Your task to perform on an android device: check storage Image 0: 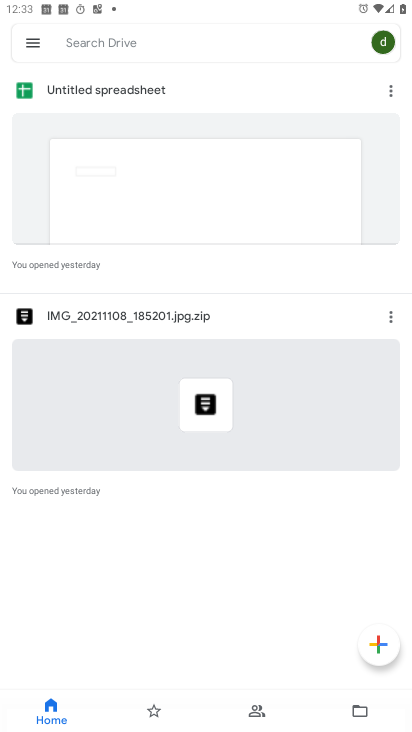
Step 0: press home button
Your task to perform on an android device: check storage Image 1: 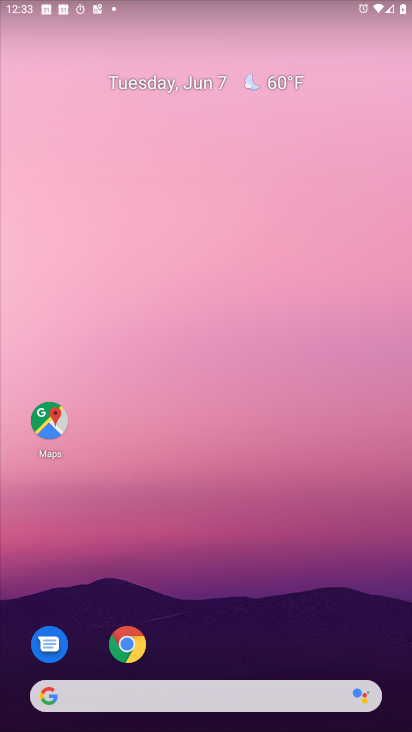
Step 1: drag from (111, 688) to (126, 30)
Your task to perform on an android device: check storage Image 2: 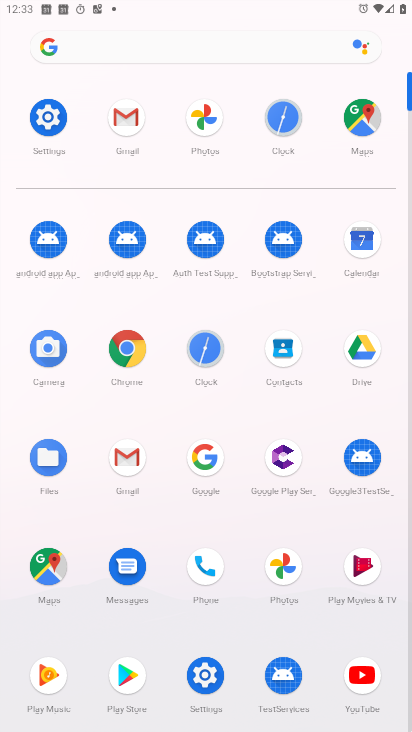
Step 2: click (59, 116)
Your task to perform on an android device: check storage Image 3: 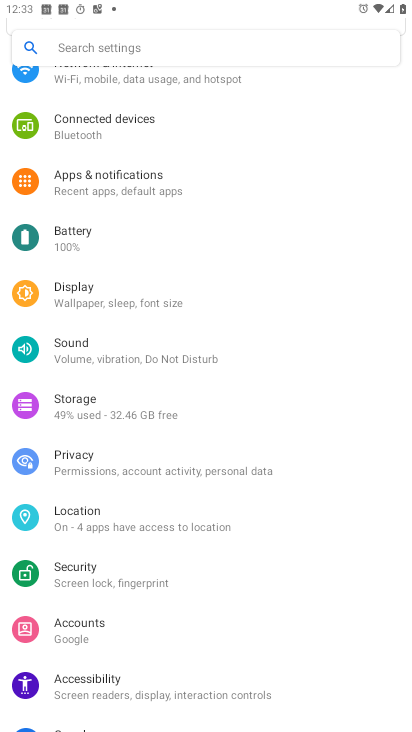
Step 3: click (112, 414)
Your task to perform on an android device: check storage Image 4: 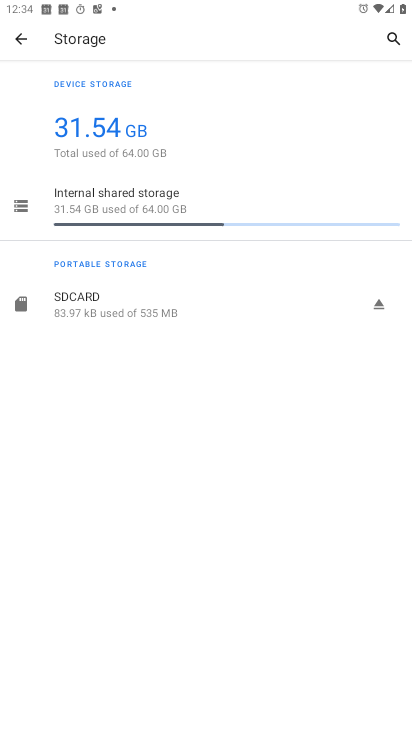
Step 4: task complete